Your task to perform on an android device: What's the weather? Image 0: 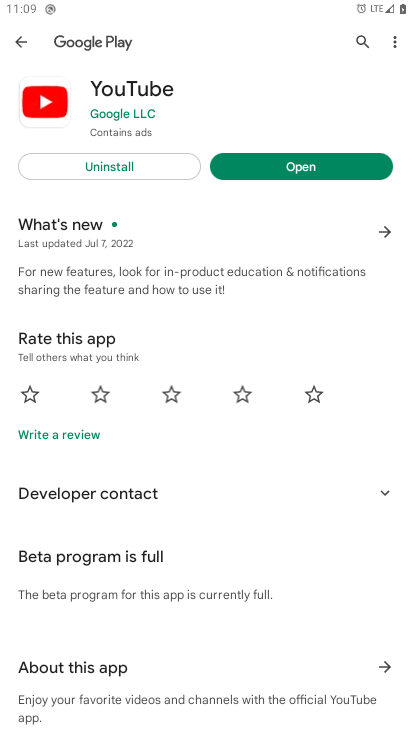
Step 0: press home button
Your task to perform on an android device: What's the weather? Image 1: 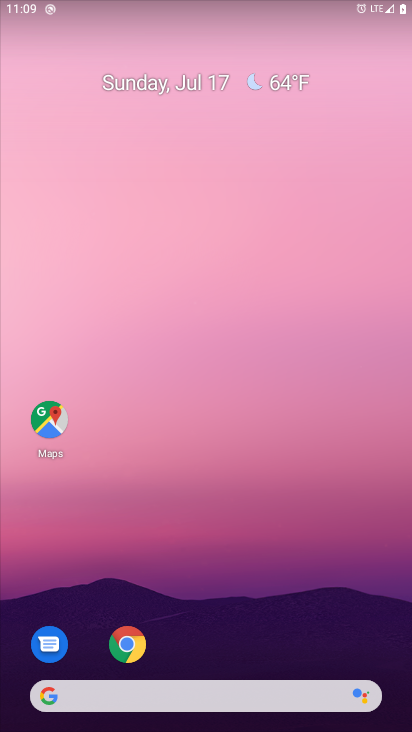
Step 1: click (127, 695)
Your task to perform on an android device: What's the weather? Image 2: 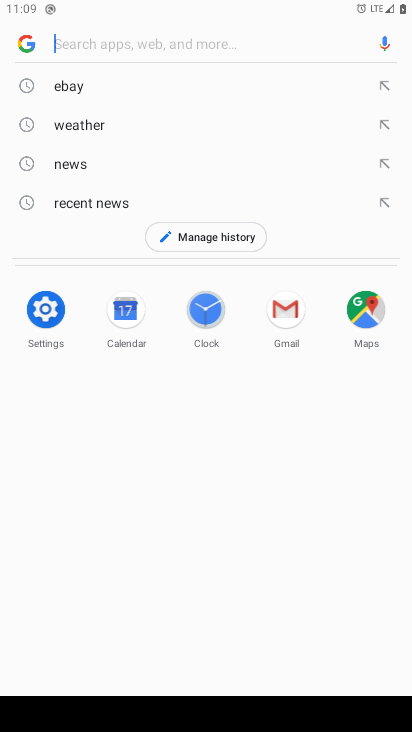
Step 2: type "weather"
Your task to perform on an android device: What's the weather? Image 3: 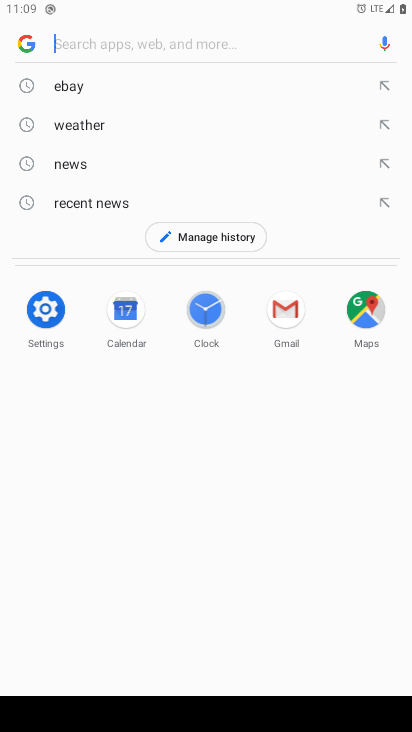
Step 3: click (96, 37)
Your task to perform on an android device: What's the weather? Image 4: 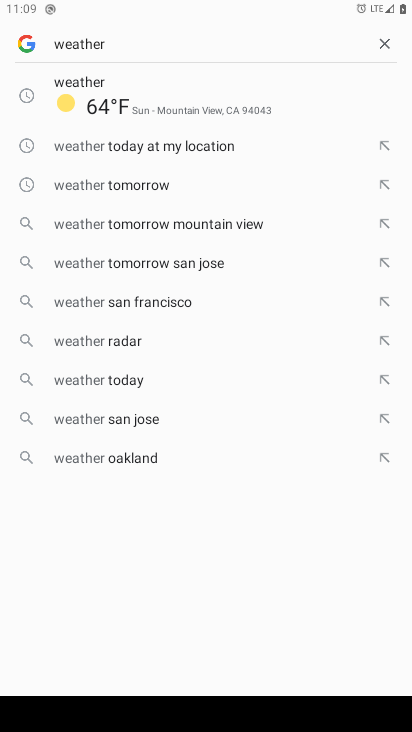
Step 4: press enter
Your task to perform on an android device: What's the weather? Image 5: 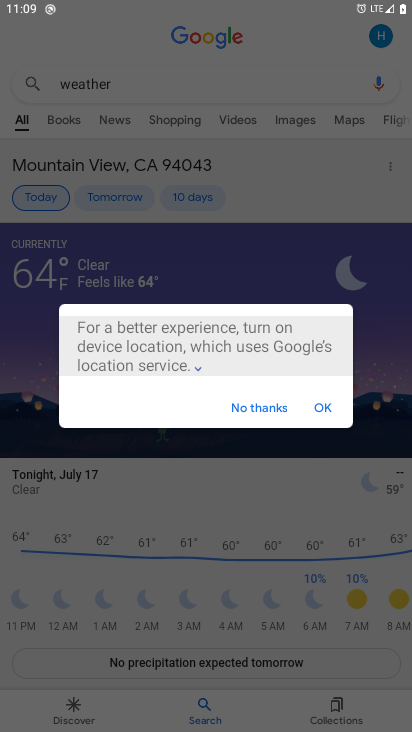
Step 5: click (271, 422)
Your task to perform on an android device: What's the weather? Image 6: 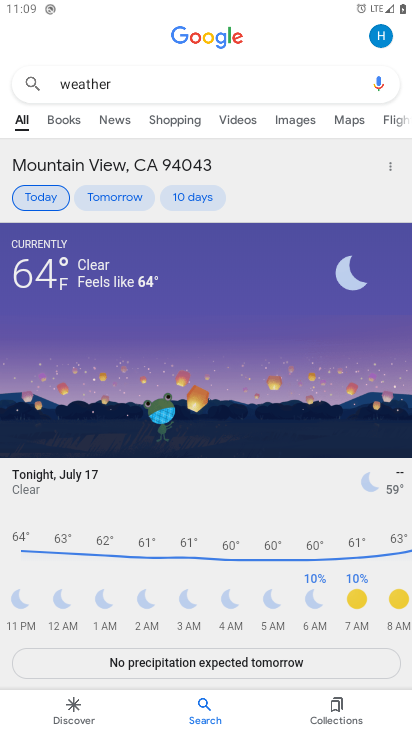
Step 6: task complete